Your task to perform on an android device: open app "Google Calendar" (install if not already installed) Image 0: 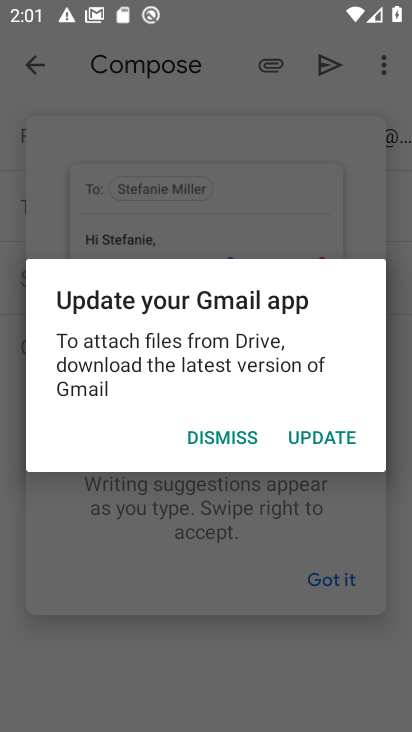
Step 0: press home button
Your task to perform on an android device: open app "Google Calendar" (install if not already installed) Image 1: 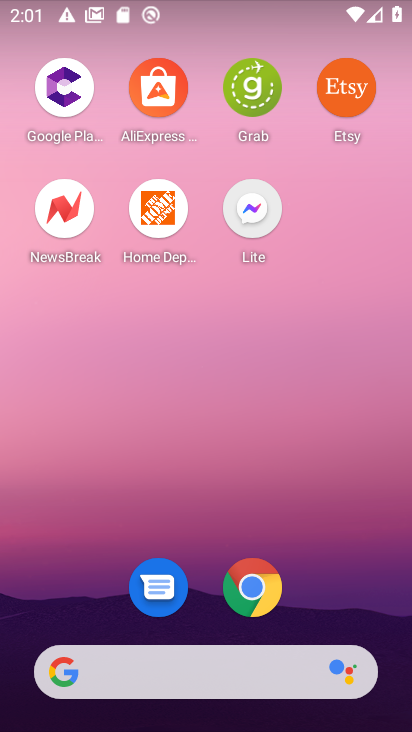
Step 1: drag from (207, 531) to (193, 205)
Your task to perform on an android device: open app "Google Calendar" (install if not already installed) Image 2: 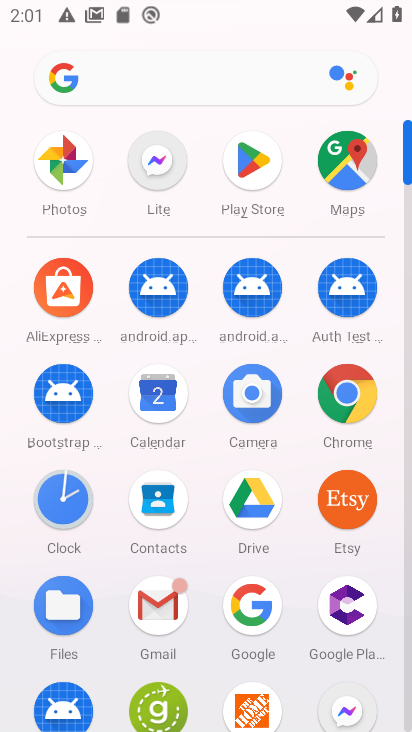
Step 2: click (257, 149)
Your task to perform on an android device: open app "Google Calendar" (install if not already installed) Image 3: 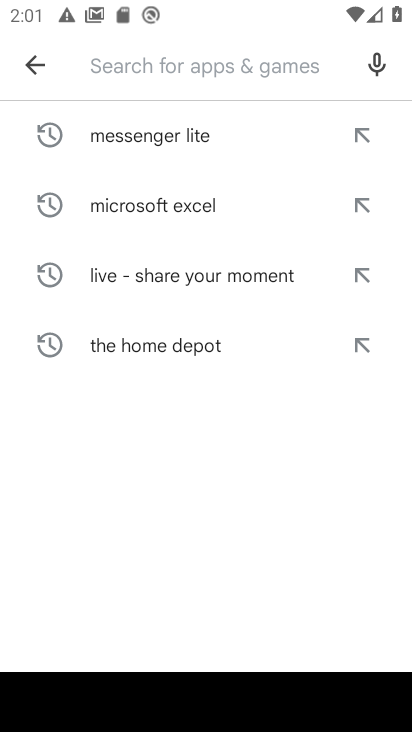
Step 3: type "Google Calendar"
Your task to perform on an android device: open app "Google Calendar" (install if not already installed) Image 4: 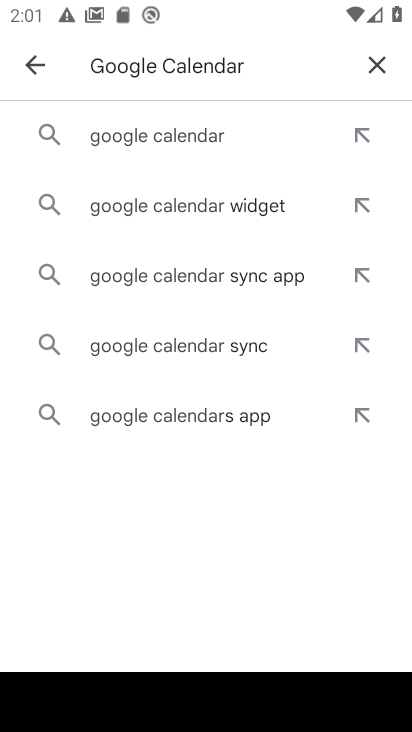
Step 4: click (204, 139)
Your task to perform on an android device: open app "Google Calendar" (install if not already installed) Image 5: 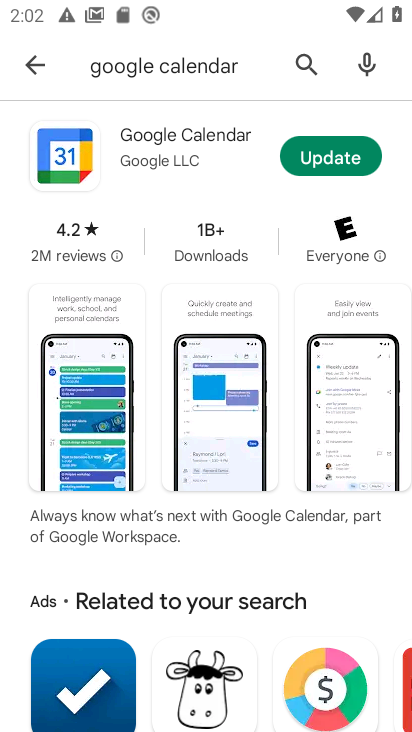
Step 5: click (189, 148)
Your task to perform on an android device: open app "Google Calendar" (install if not already installed) Image 6: 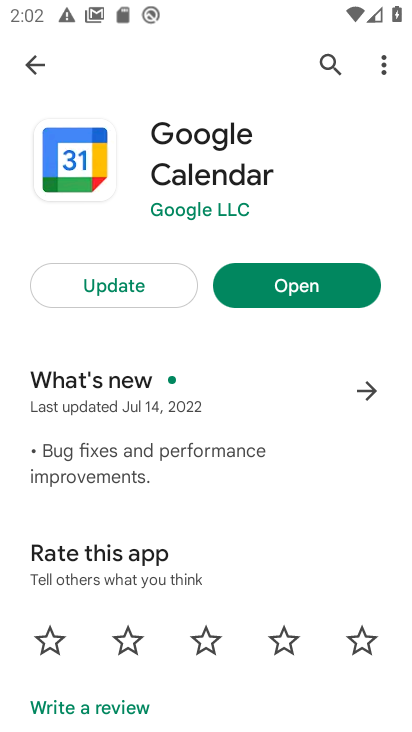
Step 6: click (296, 291)
Your task to perform on an android device: open app "Google Calendar" (install if not already installed) Image 7: 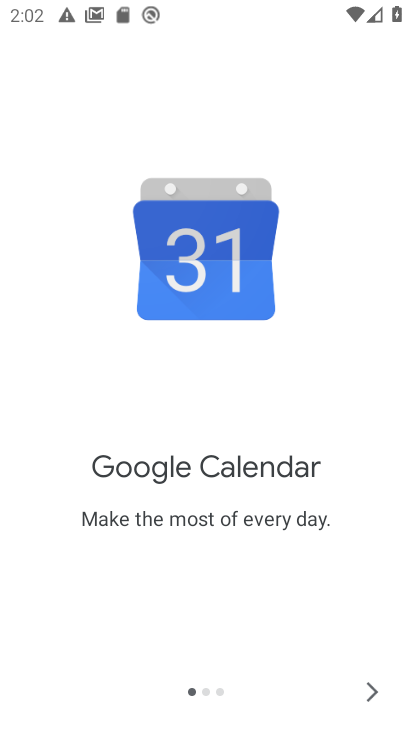
Step 7: task complete